Your task to perform on an android device: toggle wifi Image 0: 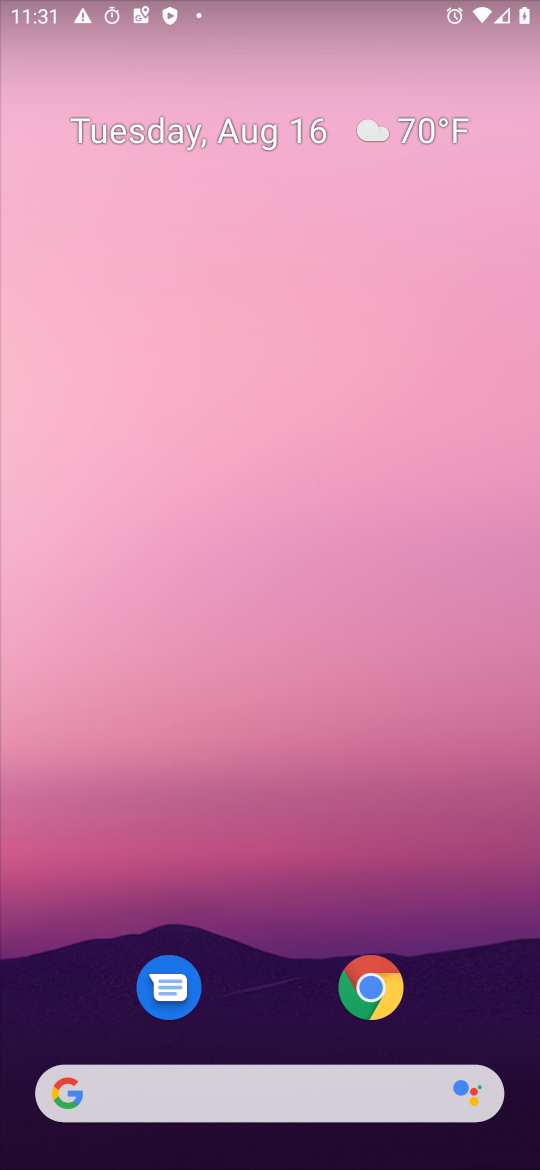
Step 0: drag from (21, 1097) to (248, 456)
Your task to perform on an android device: toggle wifi Image 1: 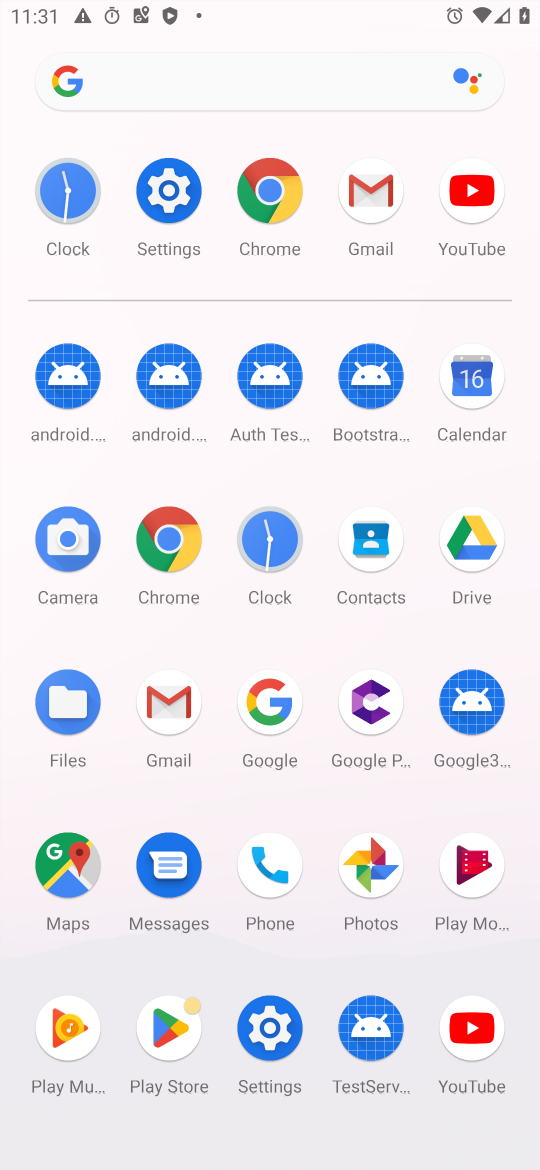
Step 1: click (285, 1032)
Your task to perform on an android device: toggle wifi Image 2: 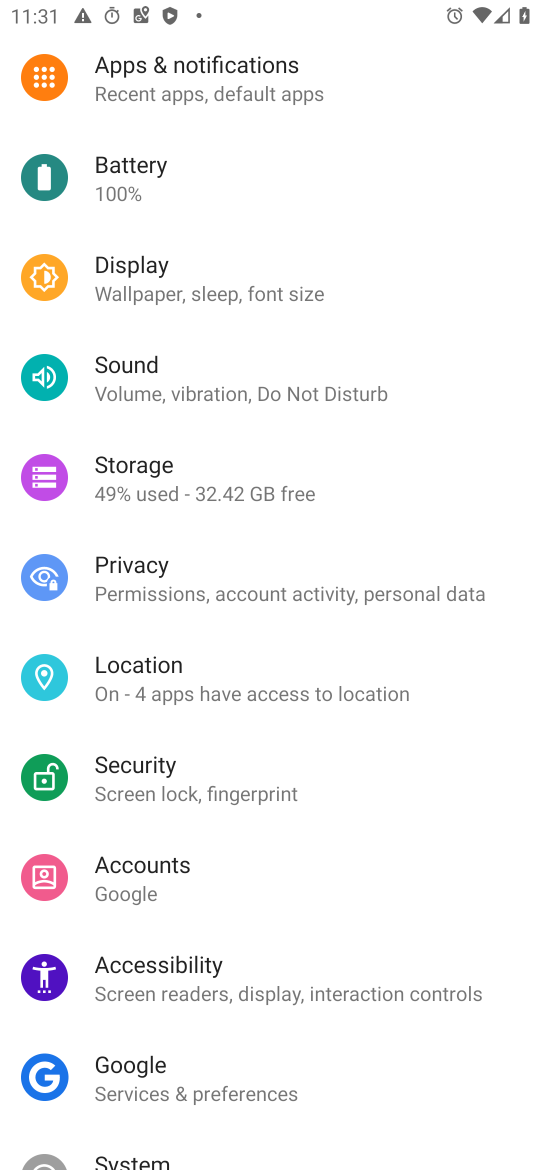
Step 2: drag from (445, 123) to (470, 655)
Your task to perform on an android device: toggle wifi Image 3: 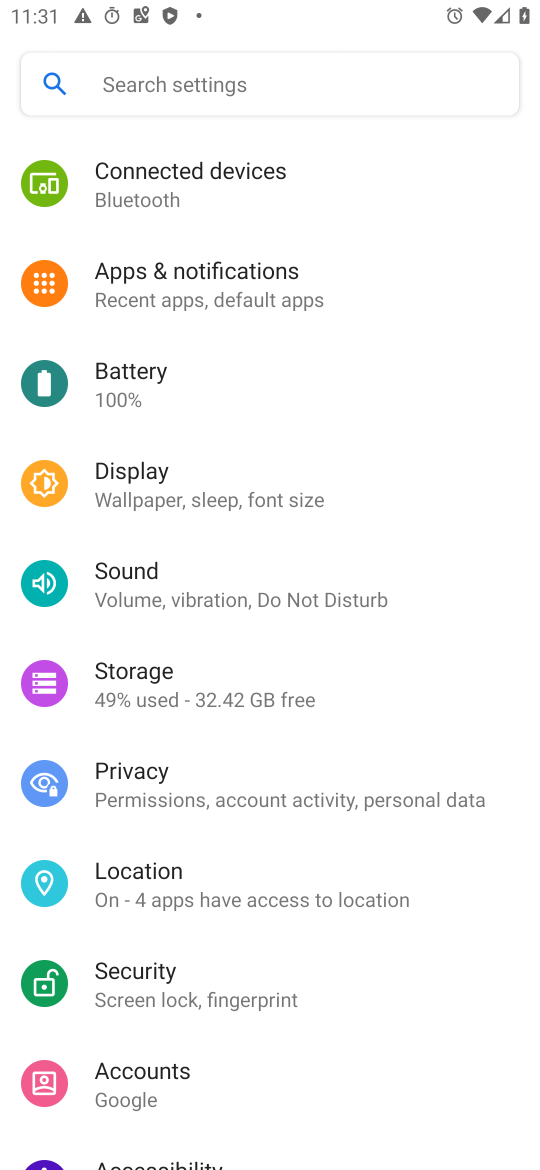
Step 3: drag from (443, 179) to (399, 610)
Your task to perform on an android device: toggle wifi Image 4: 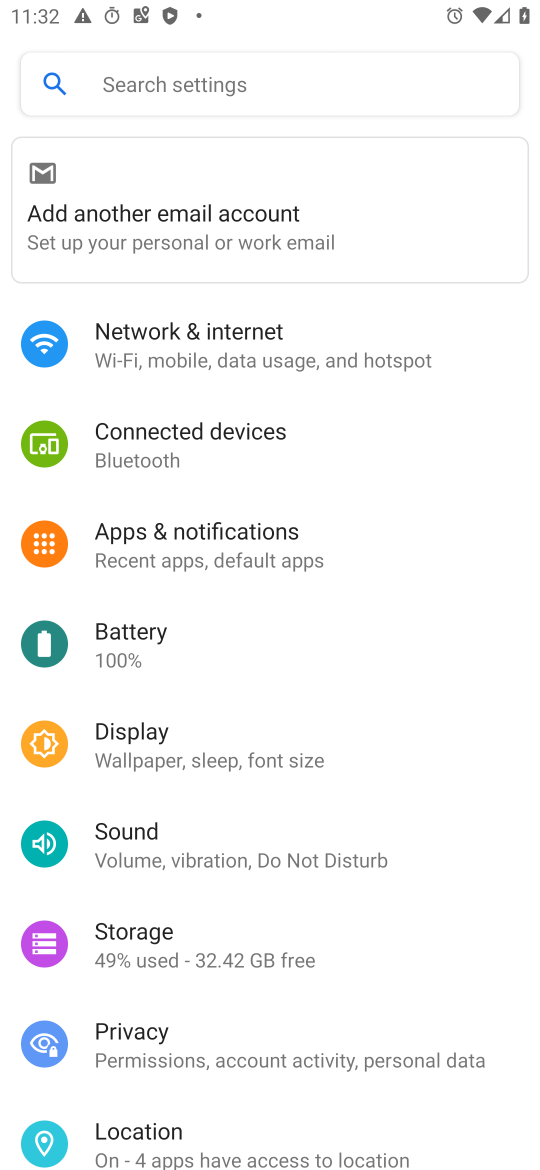
Step 4: click (186, 316)
Your task to perform on an android device: toggle wifi Image 5: 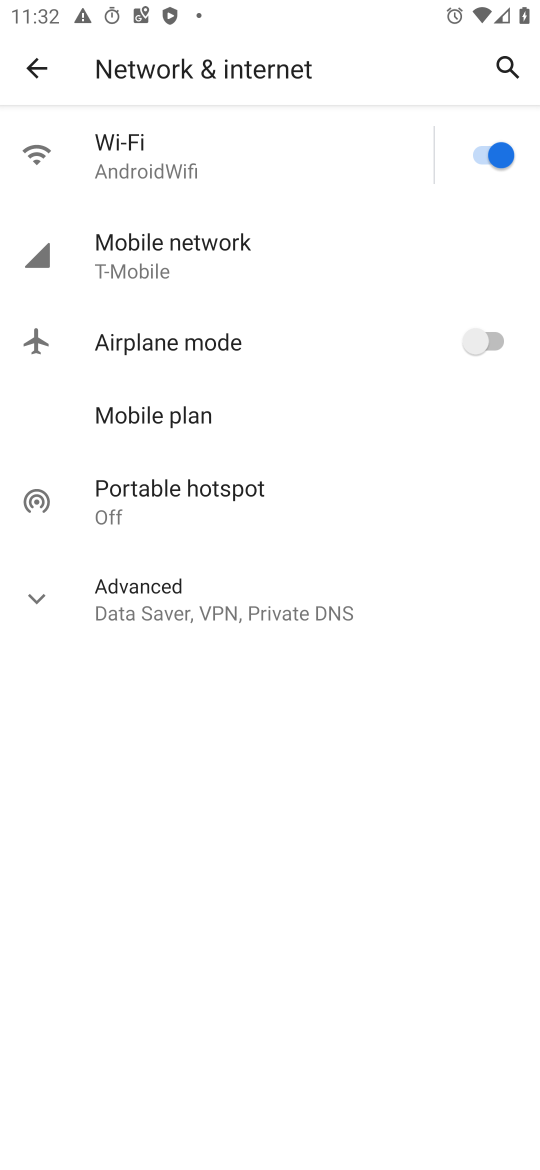
Step 5: task complete